Your task to perform on an android device: Open Google Chrome Image 0: 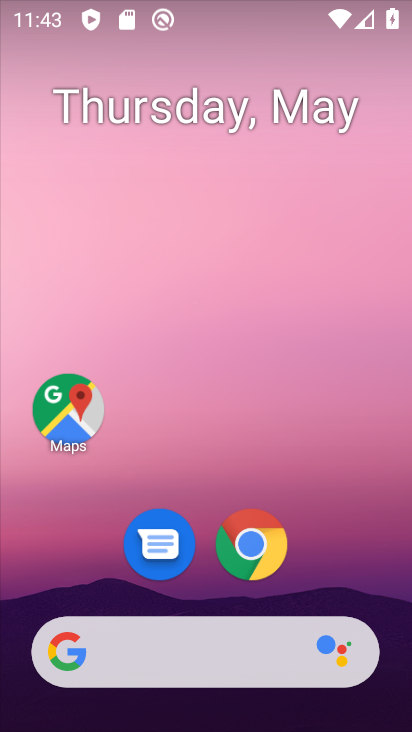
Step 0: drag from (205, 533) to (256, 40)
Your task to perform on an android device: Open Google Chrome Image 1: 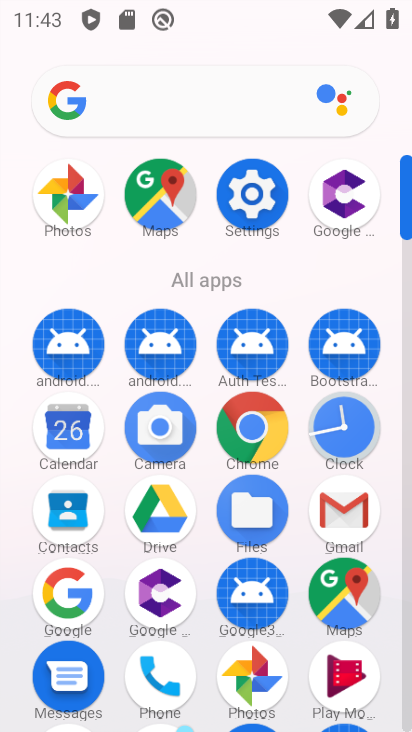
Step 1: click (246, 433)
Your task to perform on an android device: Open Google Chrome Image 2: 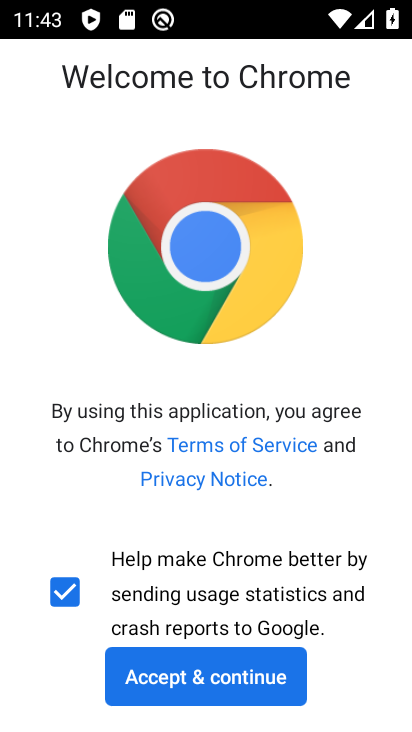
Step 2: drag from (212, 554) to (304, 233)
Your task to perform on an android device: Open Google Chrome Image 3: 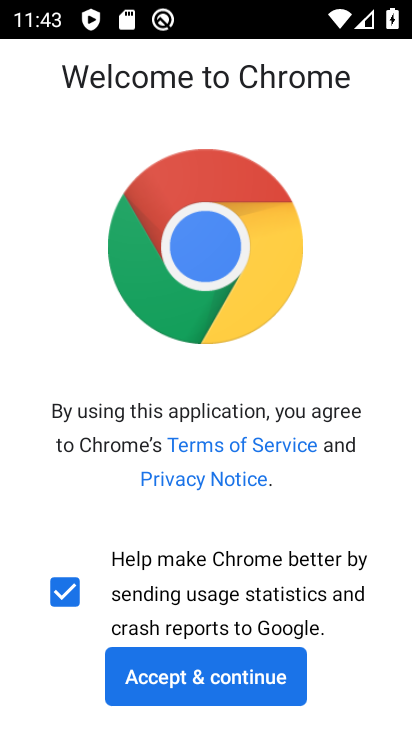
Step 3: click (219, 658)
Your task to perform on an android device: Open Google Chrome Image 4: 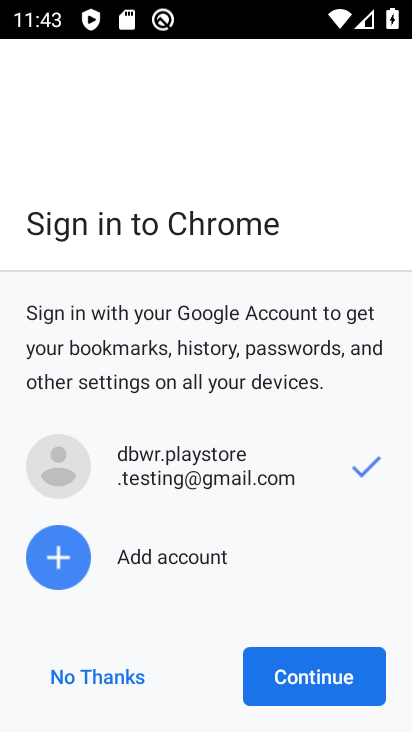
Step 4: click (360, 684)
Your task to perform on an android device: Open Google Chrome Image 5: 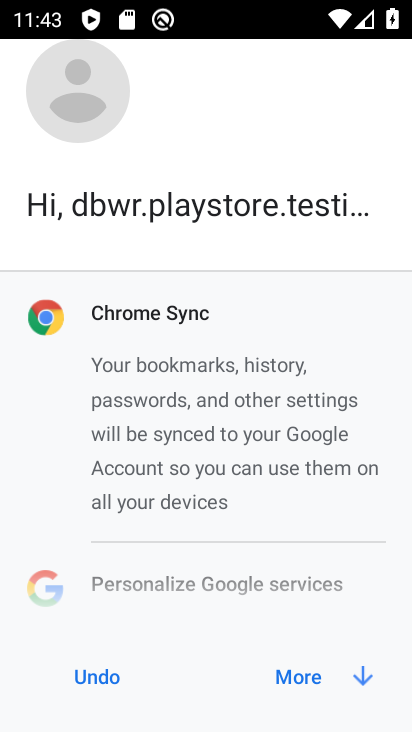
Step 5: click (291, 674)
Your task to perform on an android device: Open Google Chrome Image 6: 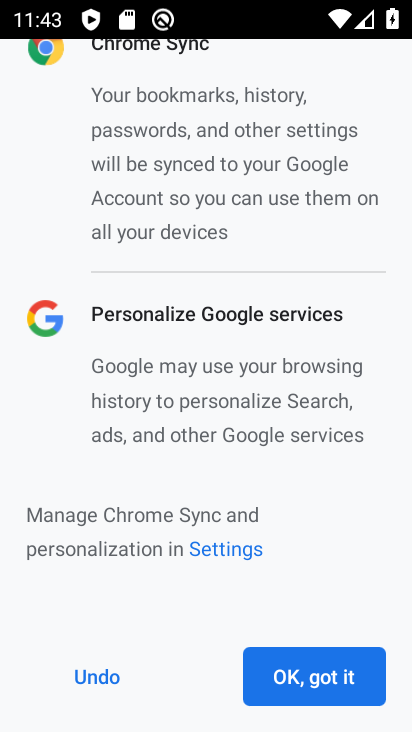
Step 6: click (290, 673)
Your task to perform on an android device: Open Google Chrome Image 7: 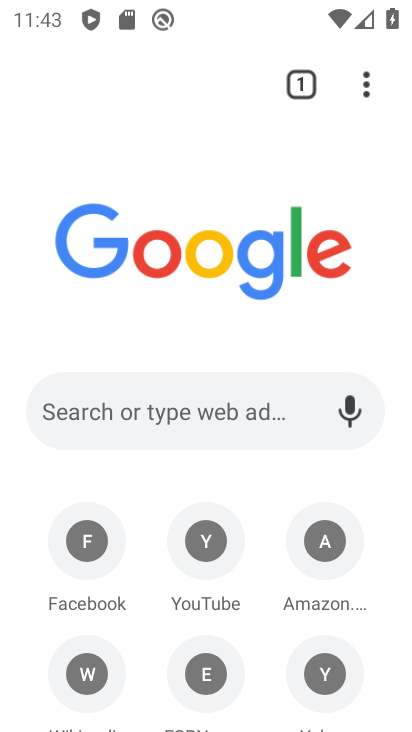
Step 7: task complete